Your task to perform on an android device: Search for Mexican restaurants on Maps Image 0: 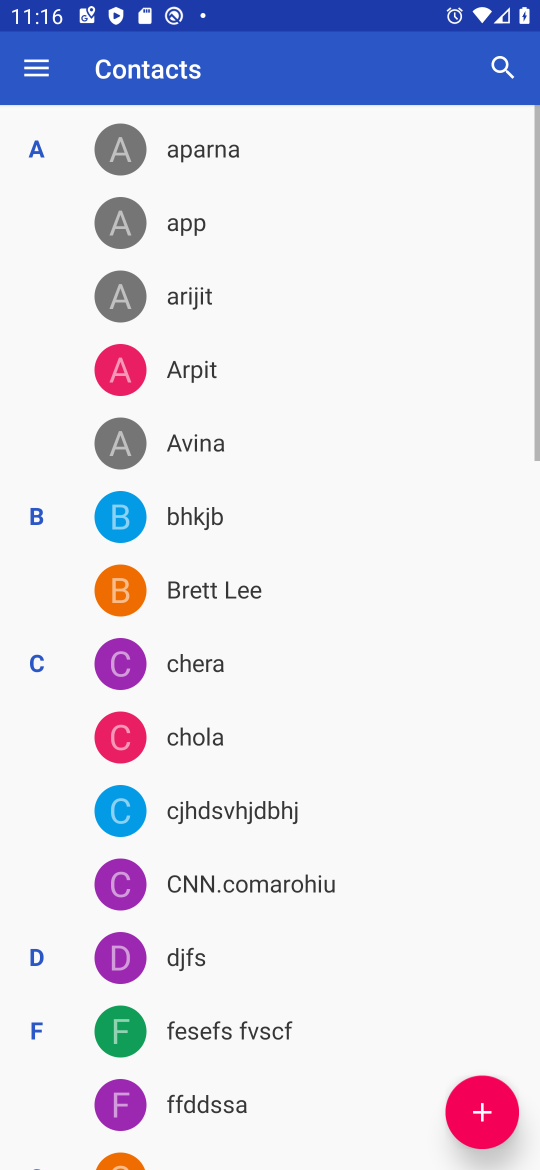
Step 0: press back button
Your task to perform on an android device: Search for Mexican restaurants on Maps Image 1: 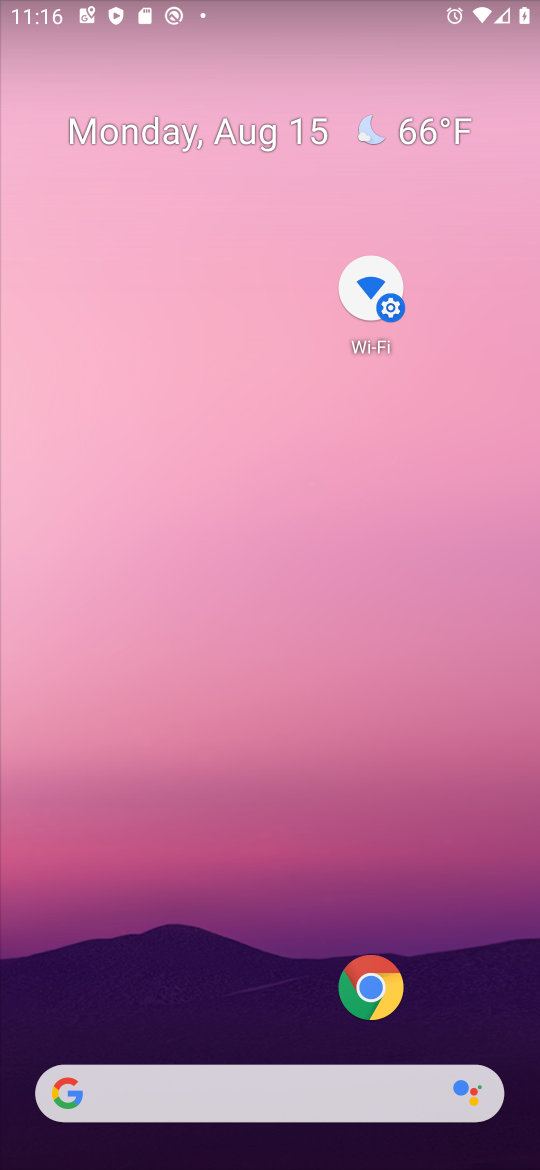
Step 1: drag from (279, 1041) to (236, 1169)
Your task to perform on an android device: Search for Mexican restaurants on Maps Image 2: 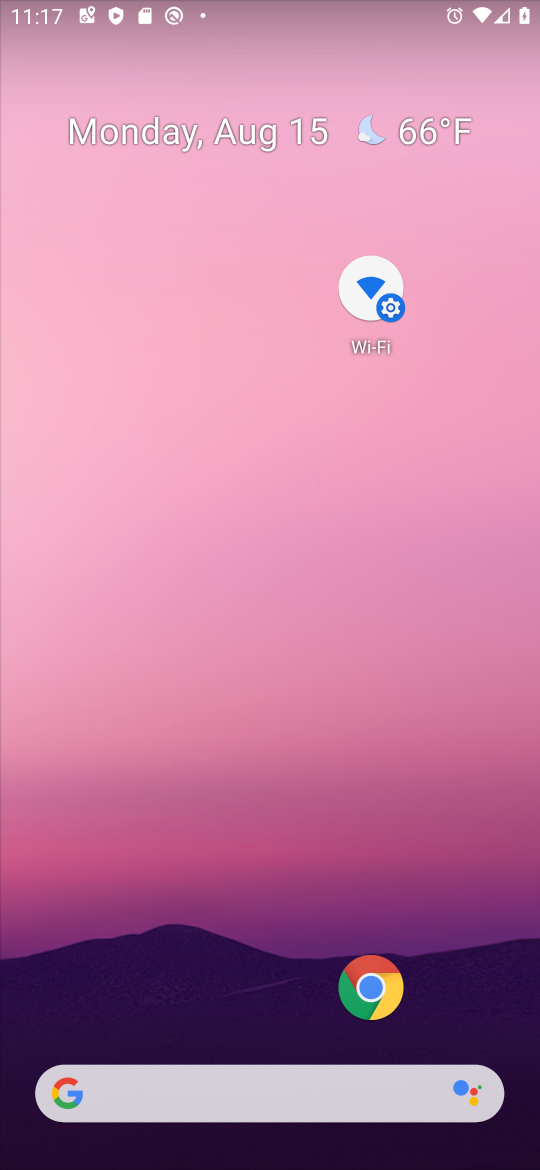
Step 2: drag from (254, 1058) to (156, 85)
Your task to perform on an android device: Search for Mexican restaurants on Maps Image 3: 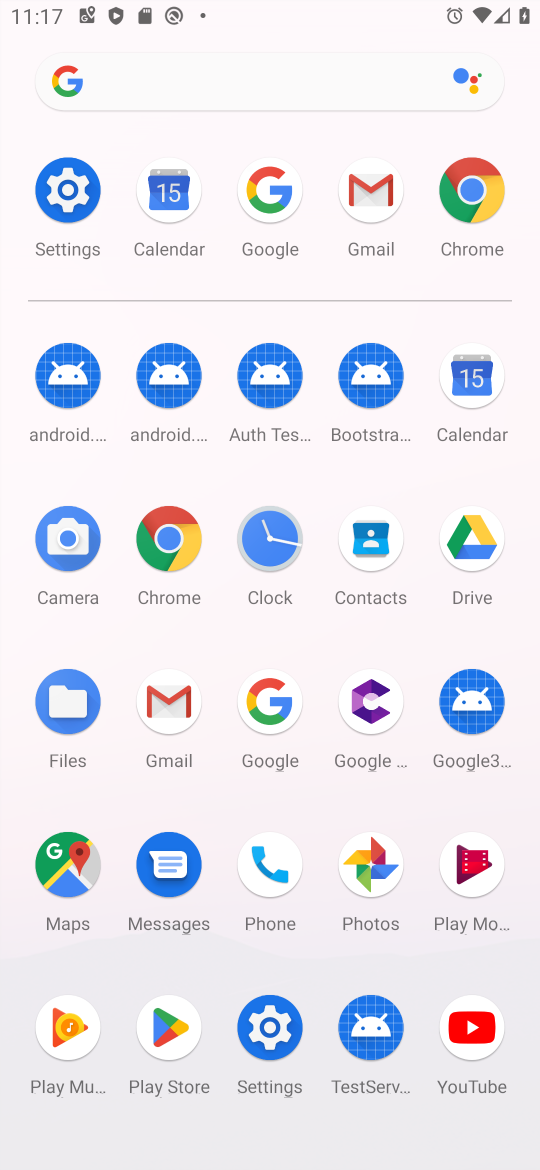
Step 3: click (71, 878)
Your task to perform on an android device: Search for Mexican restaurants on Maps Image 4: 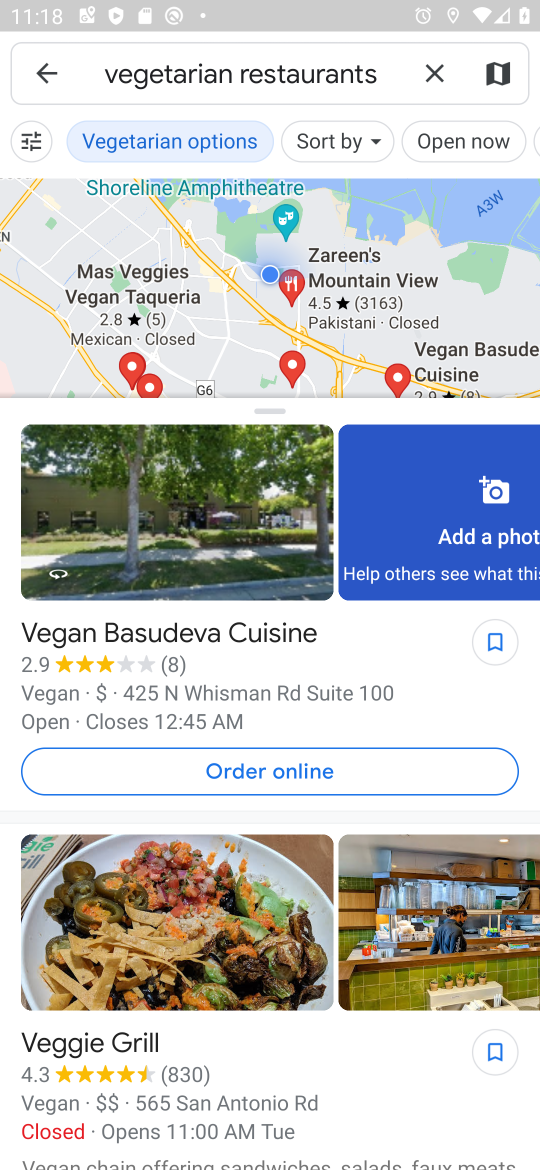
Step 4: click (432, 64)
Your task to perform on an android device: Search for Mexican restaurants on Maps Image 5: 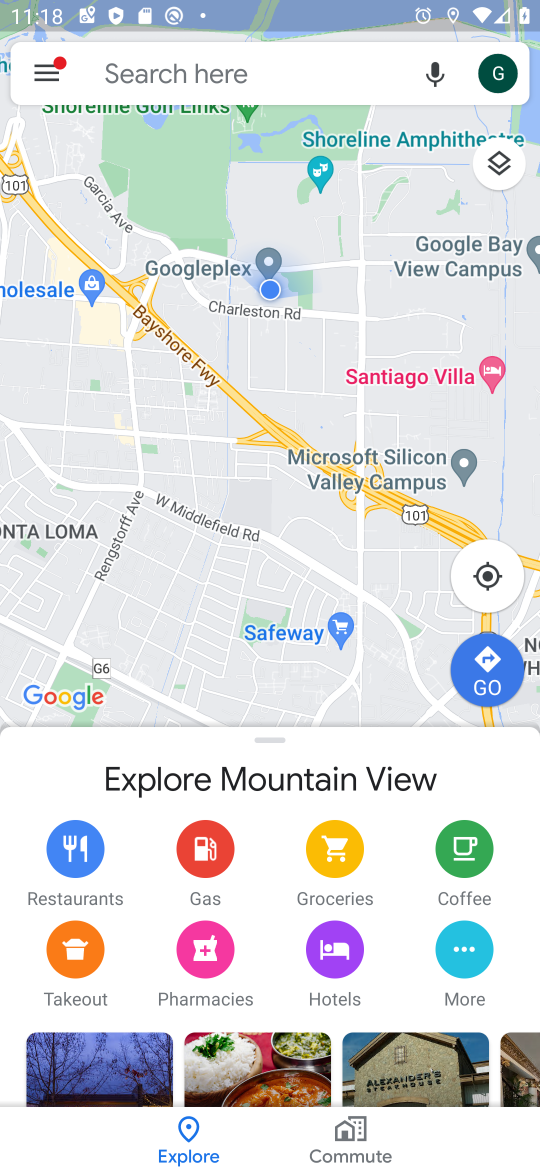
Step 5: click (331, 67)
Your task to perform on an android device: Search for Mexican restaurants on Maps Image 6: 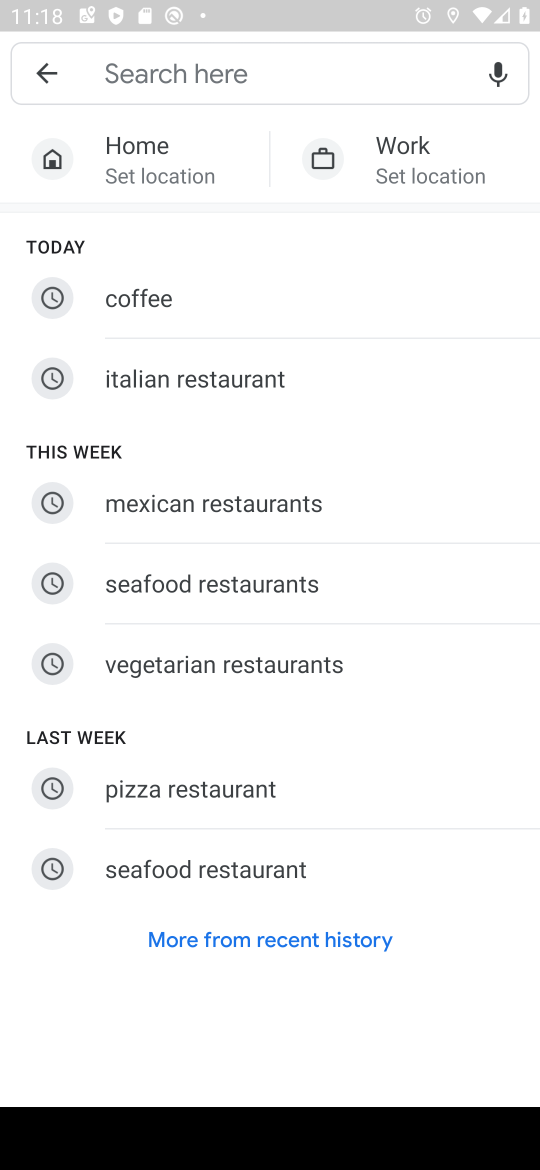
Step 6: click (177, 499)
Your task to perform on an android device: Search for Mexican restaurants on Maps Image 7: 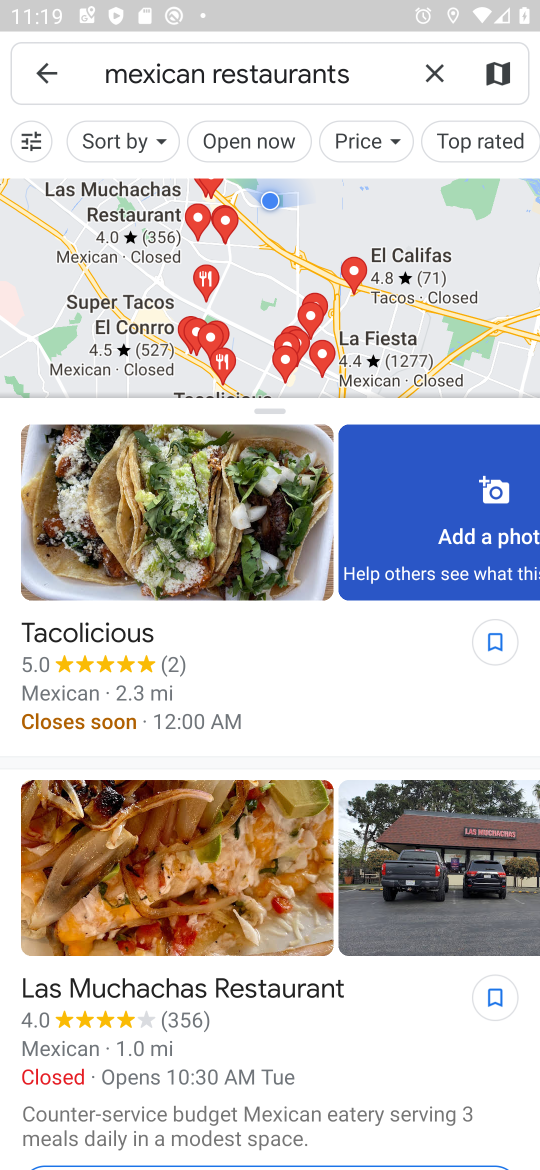
Step 7: task complete